Your task to perform on an android device: Open the map Image 0: 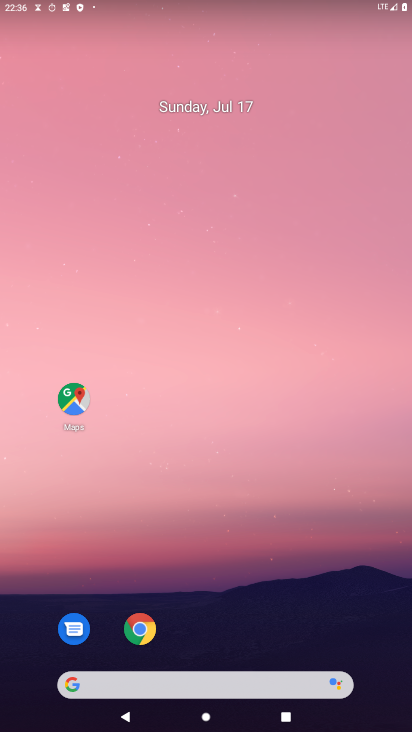
Step 0: drag from (240, 709) to (229, 116)
Your task to perform on an android device: Open the map Image 1: 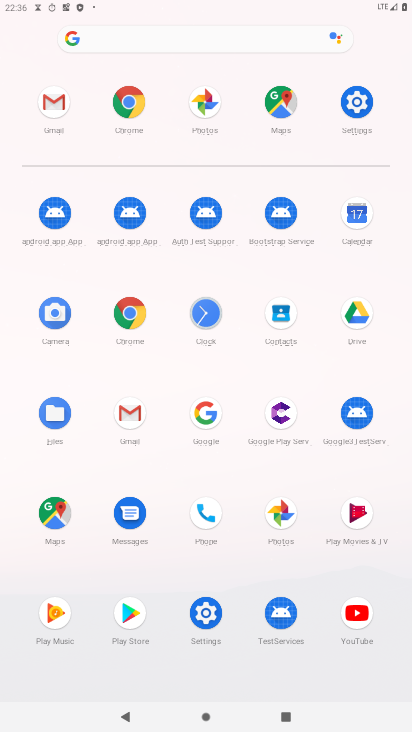
Step 1: click (57, 513)
Your task to perform on an android device: Open the map Image 2: 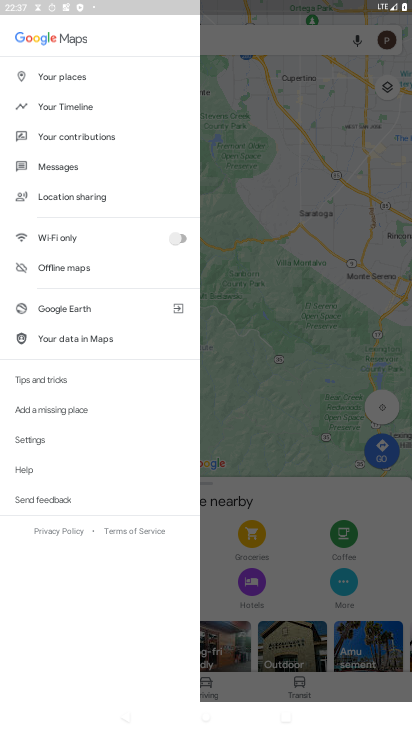
Step 2: task complete